Your task to perform on an android device: open app "Facebook" Image 0: 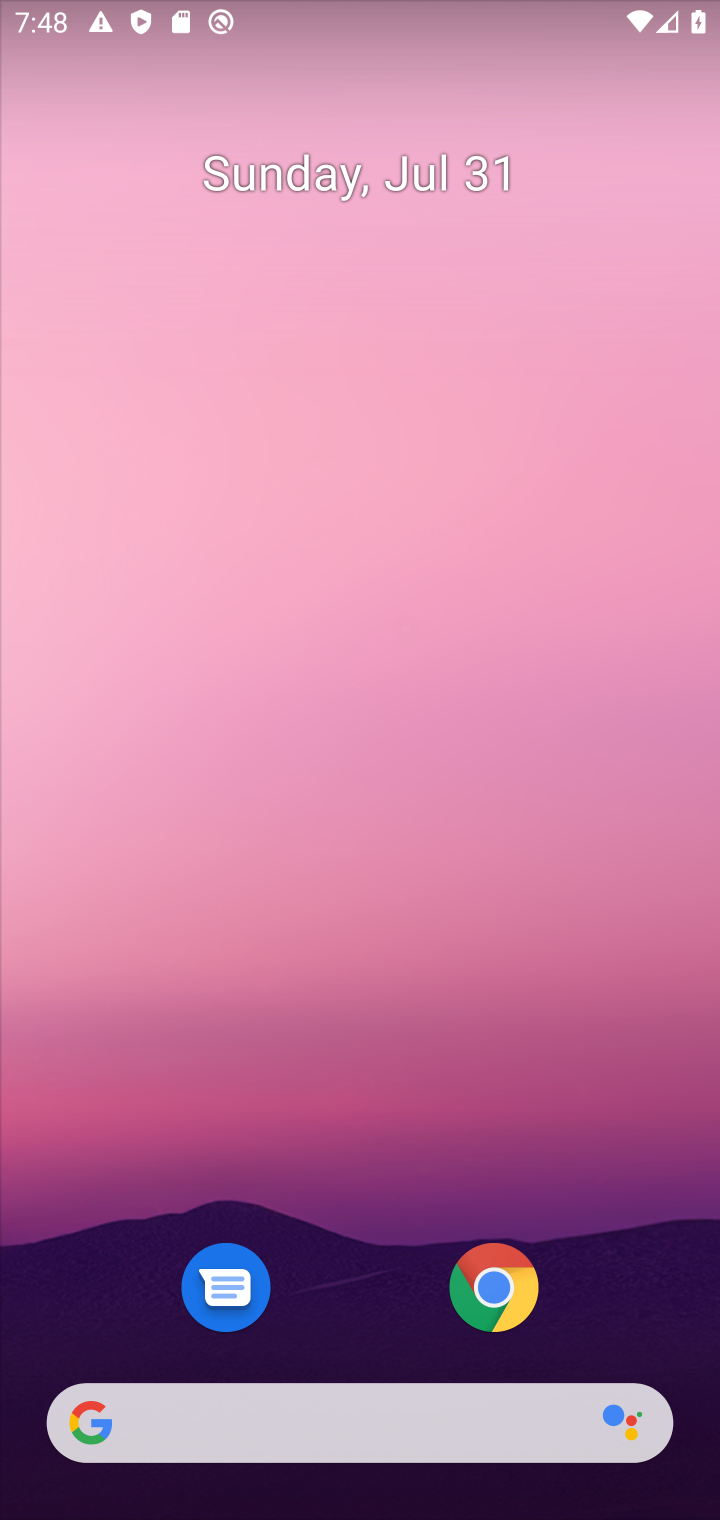
Step 0: drag from (323, 1506) to (289, 814)
Your task to perform on an android device: open app "Facebook" Image 1: 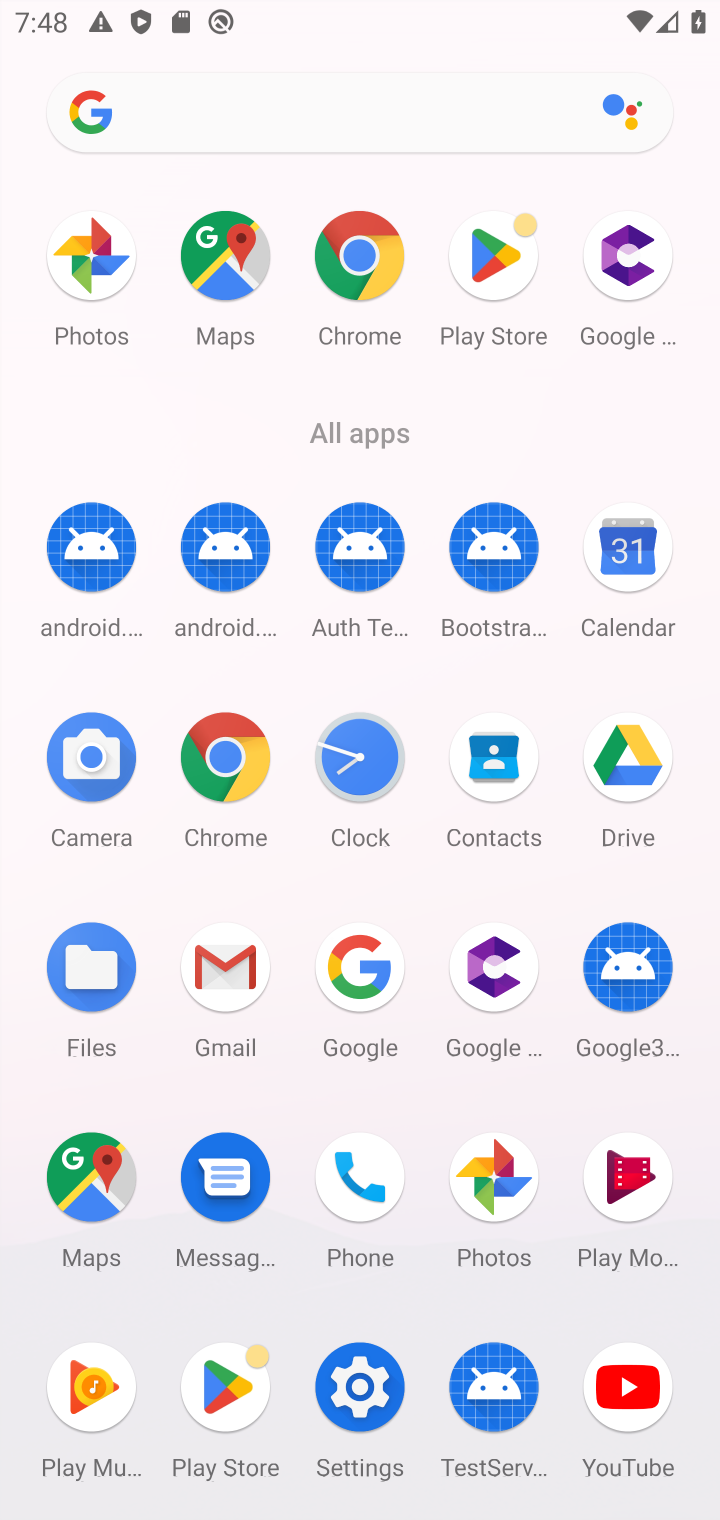
Step 1: click (485, 261)
Your task to perform on an android device: open app "Facebook" Image 2: 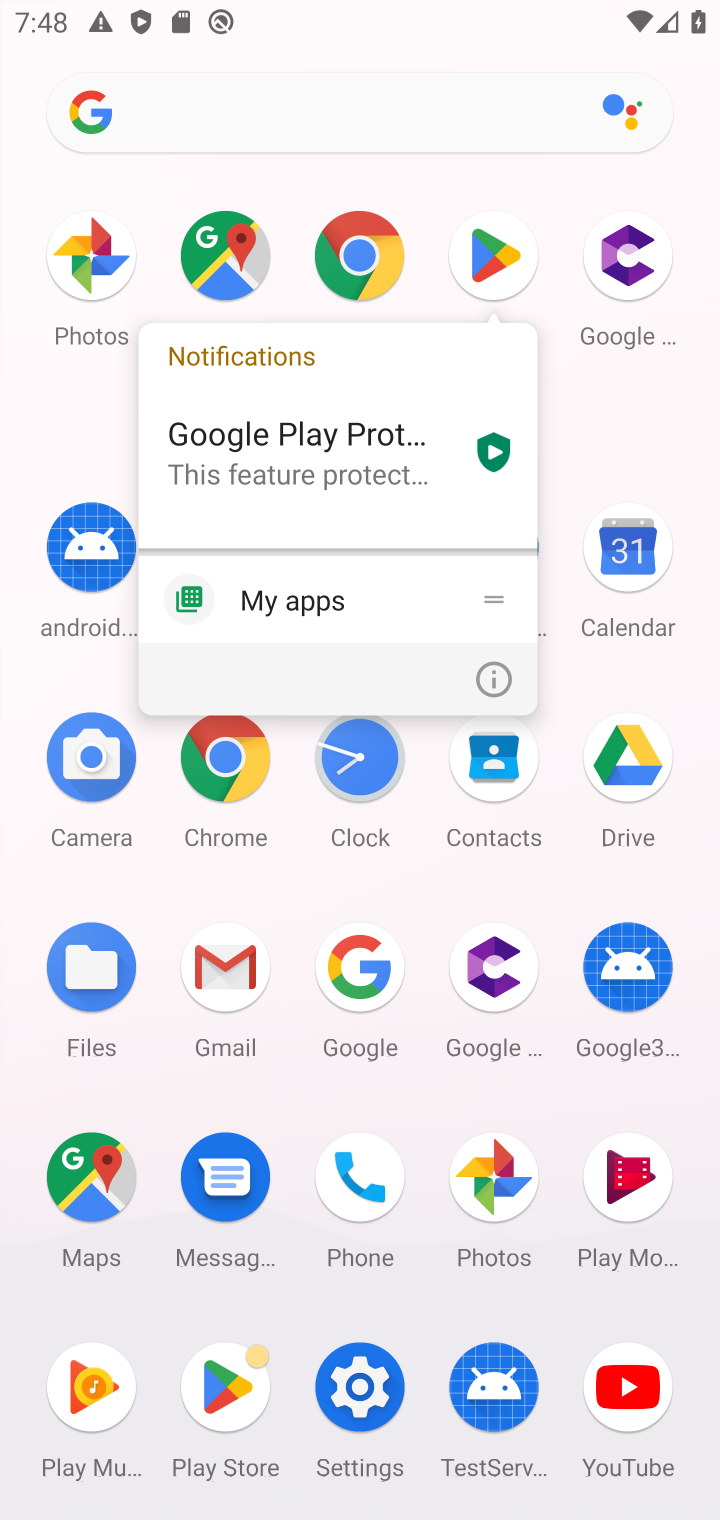
Step 2: click (485, 261)
Your task to perform on an android device: open app "Facebook" Image 3: 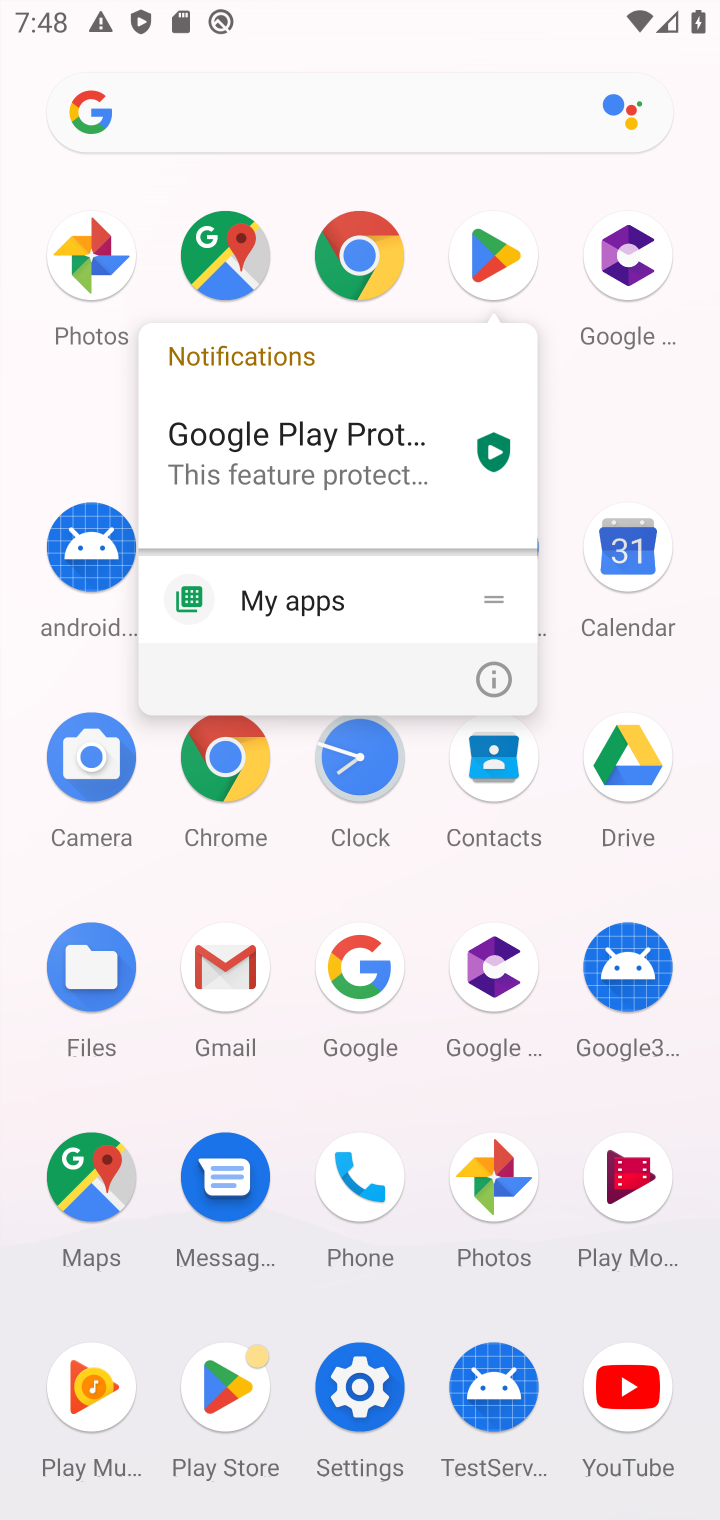
Step 3: click (525, 236)
Your task to perform on an android device: open app "Facebook" Image 4: 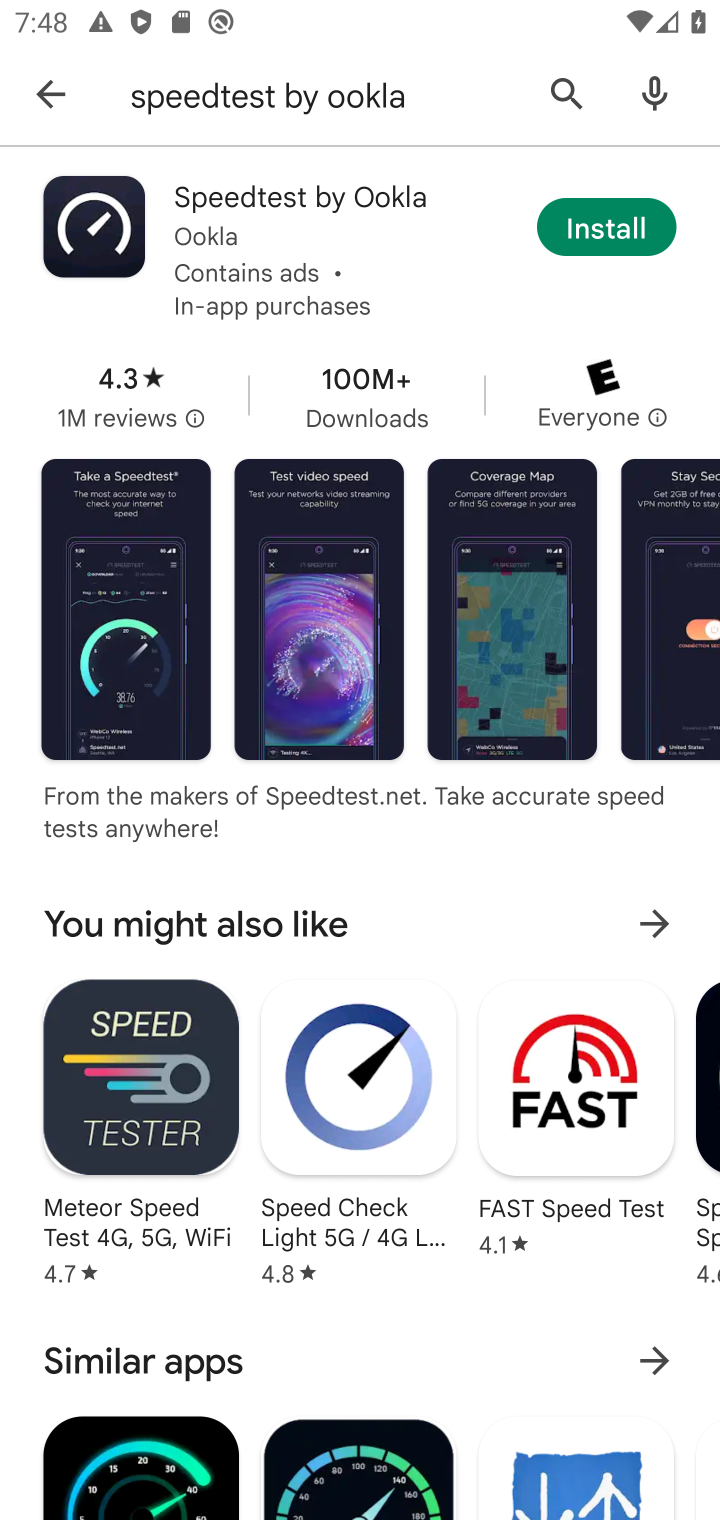
Step 4: click (580, 94)
Your task to perform on an android device: open app "Facebook" Image 5: 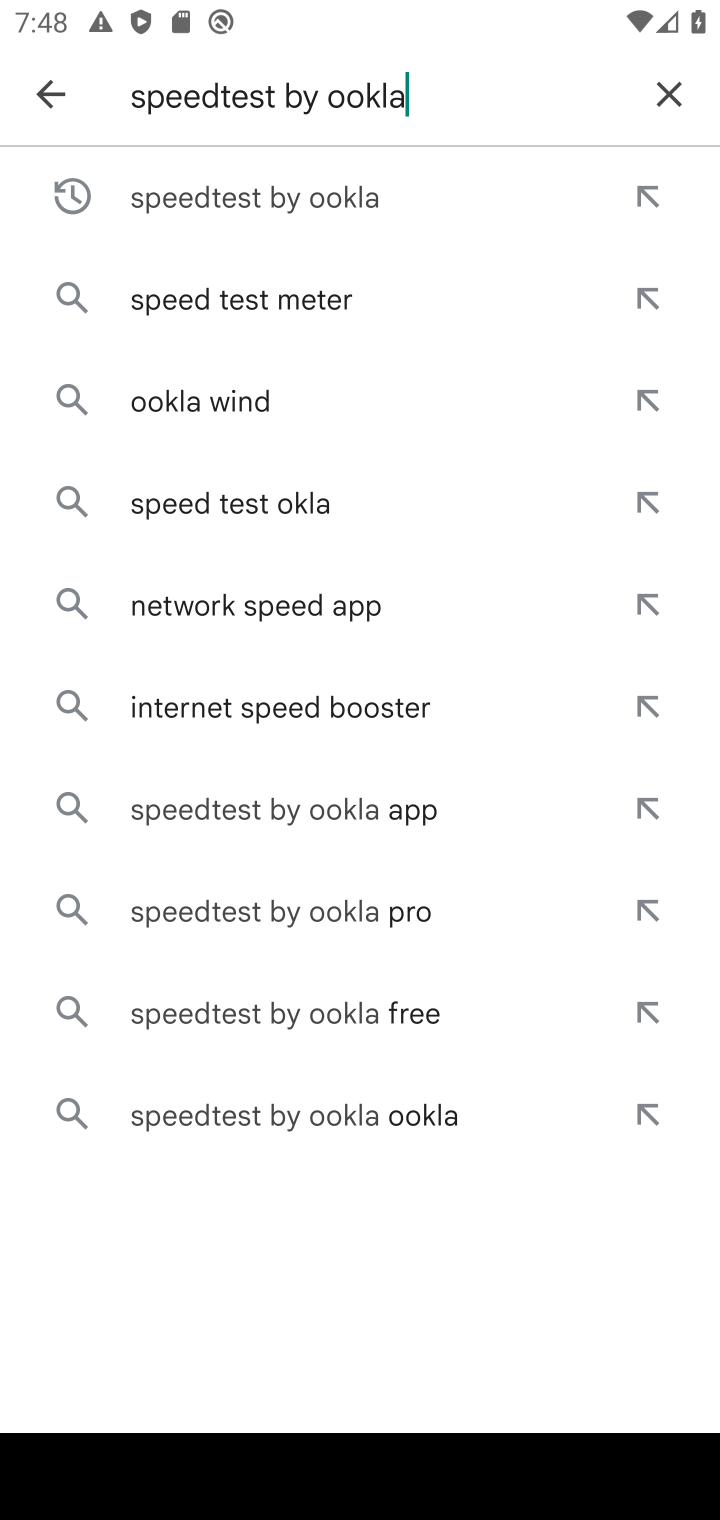
Step 5: click (670, 81)
Your task to perform on an android device: open app "Facebook" Image 6: 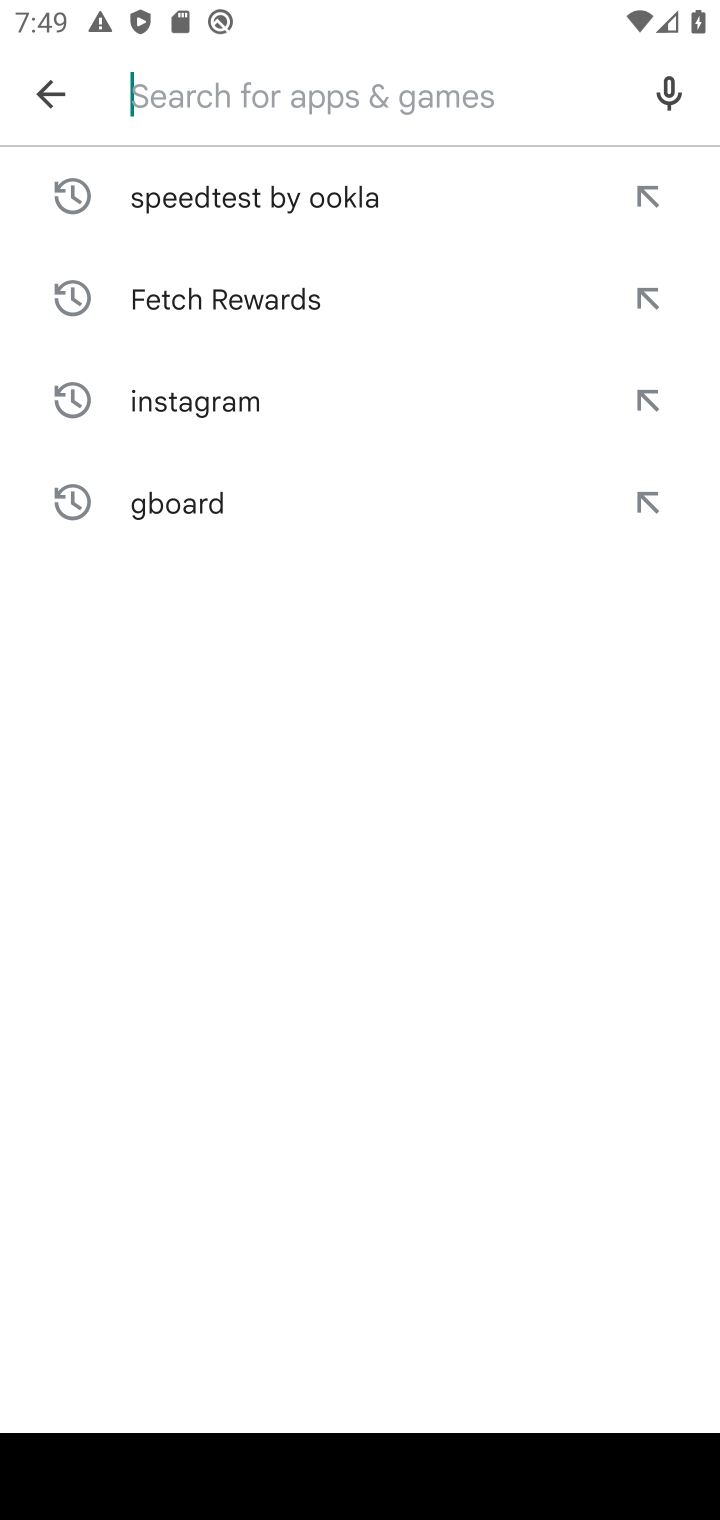
Step 6: type "Facebook"
Your task to perform on an android device: open app "Facebook" Image 7: 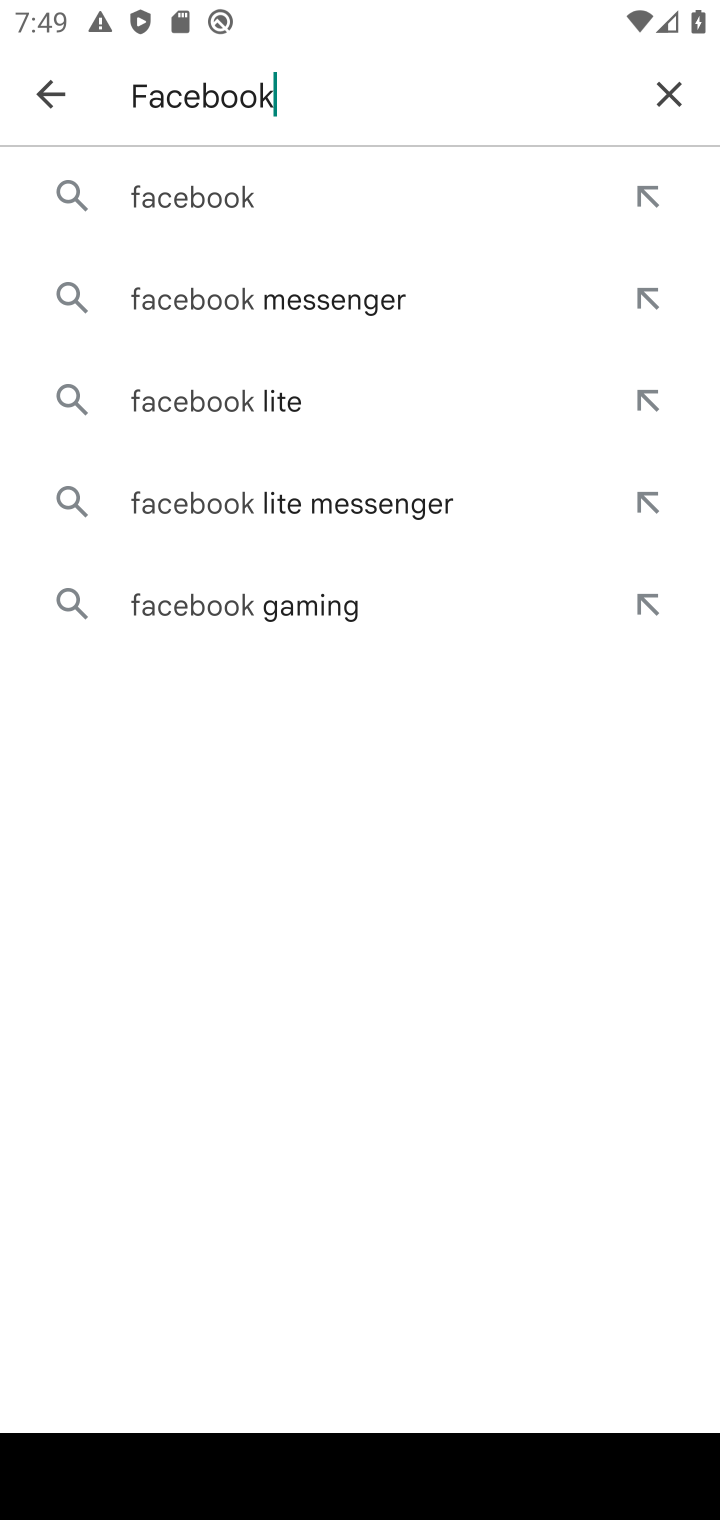
Step 7: click (366, 208)
Your task to perform on an android device: open app "Facebook" Image 8: 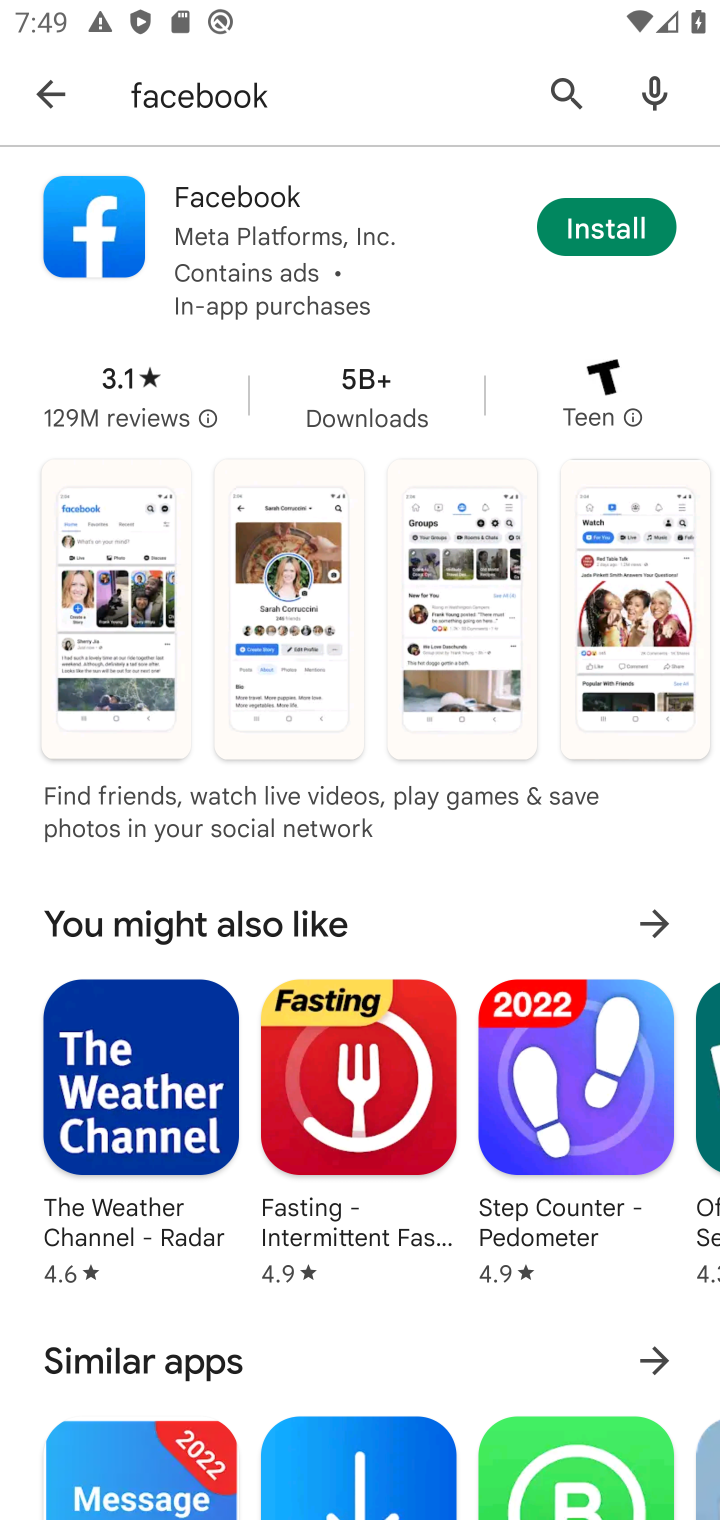
Step 8: task complete